Your task to perform on an android device: turn on sleep mode Image 0: 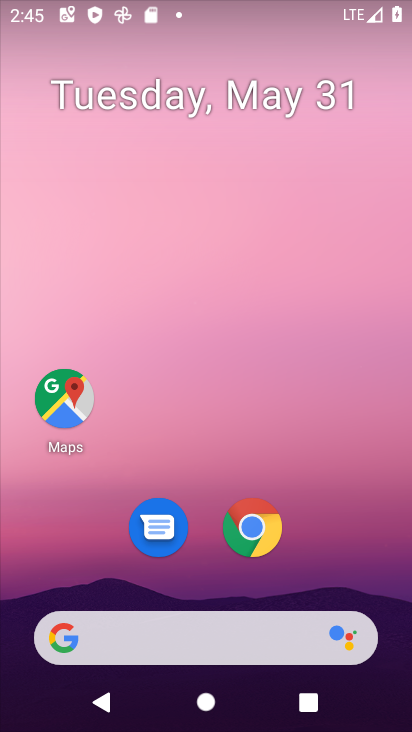
Step 0: drag from (337, 563) to (369, 97)
Your task to perform on an android device: turn on sleep mode Image 1: 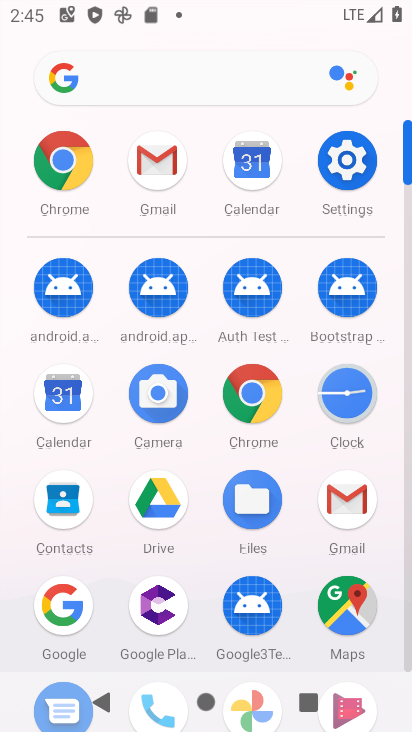
Step 1: click (325, 186)
Your task to perform on an android device: turn on sleep mode Image 2: 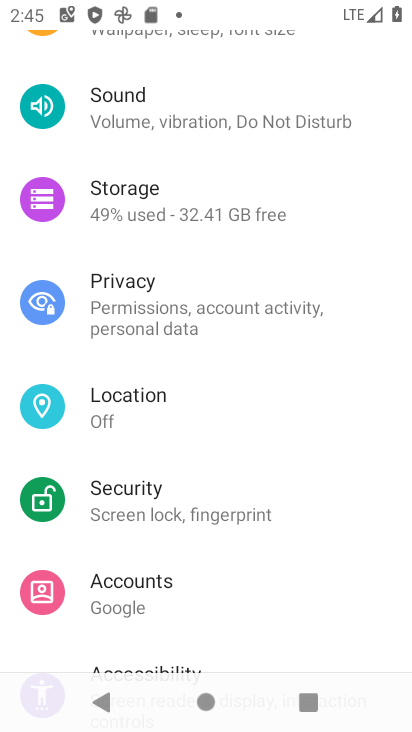
Step 2: drag from (214, 189) to (208, 543)
Your task to perform on an android device: turn on sleep mode Image 3: 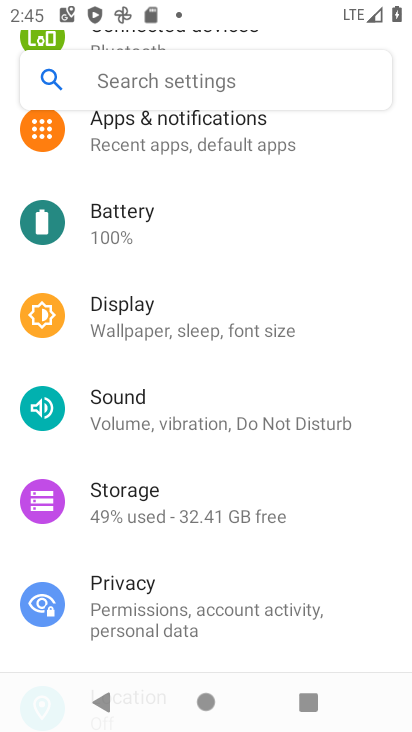
Step 3: click (165, 310)
Your task to perform on an android device: turn on sleep mode Image 4: 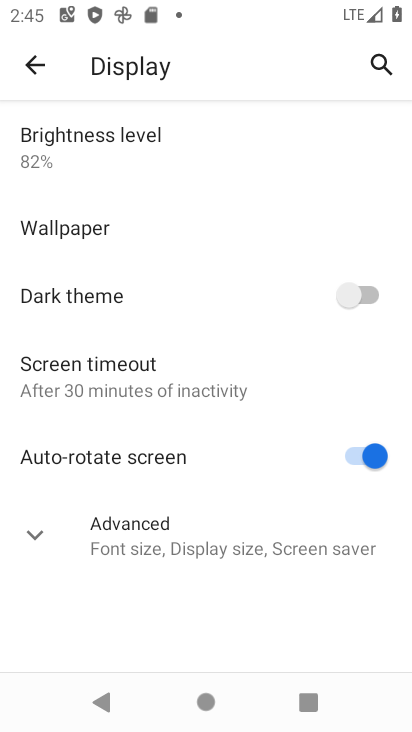
Step 4: click (117, 379)
Your task to perform on an android device: turn on sleep mode Image 5: 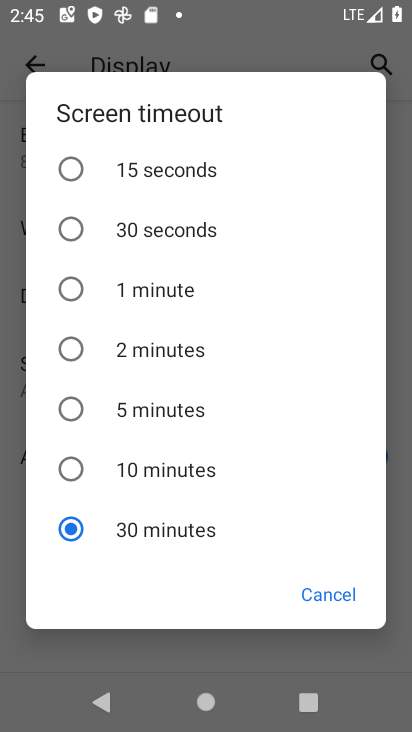
Step 5: task complete